Your task to perform on an android device: see sites visited before in the chrome app Image 0: 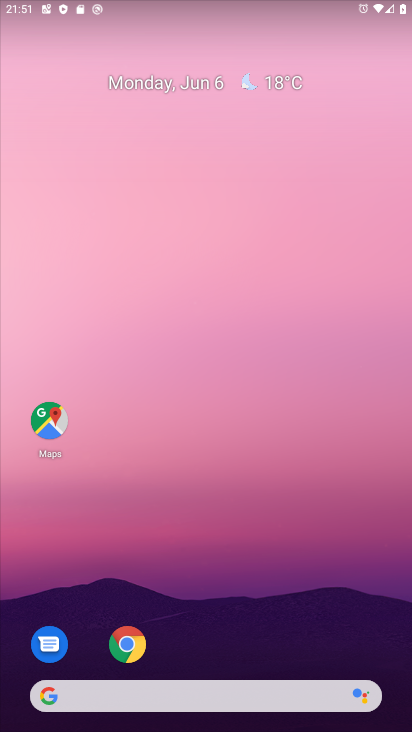
Step 0: drag from (374, 596) to (293, 140)
Your task to perform on an android device: see sites visited before in the chrome app Image 1: 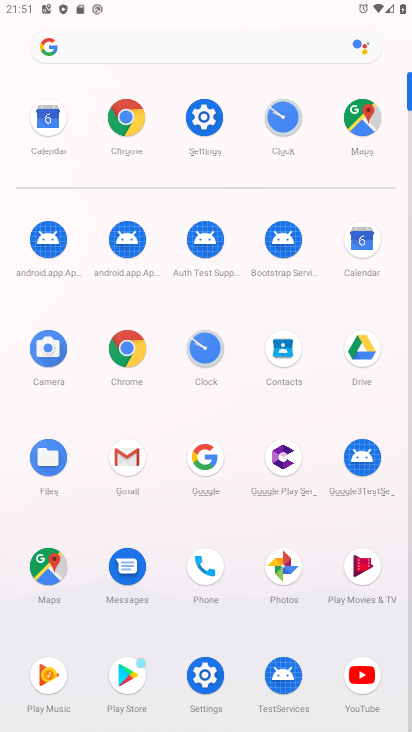
Step 1: click (120, 357)
Your task to perform on an android device: see sites visited before in the chrome app Image 2: 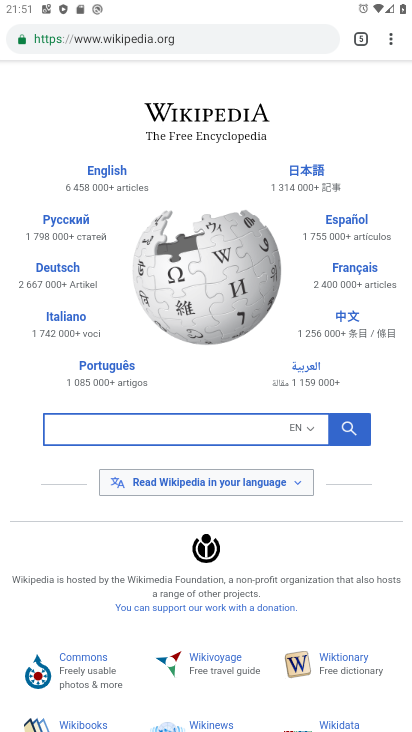
Step 2: click (392, 38)
Your task to perform on an android device: see sites visited before in the chrome app Image 3: 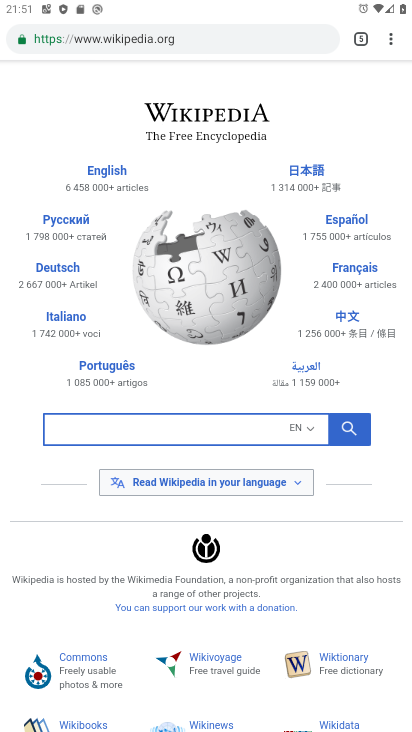
Step 3: task complete